Your task to perform on an android device: Open Google Image 0: 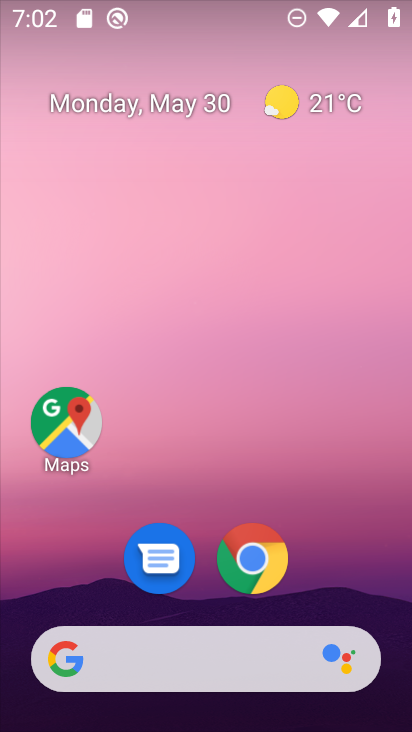
Step 0: click (190, 668)
Your task to perform on an android device: Open Google Image 1: 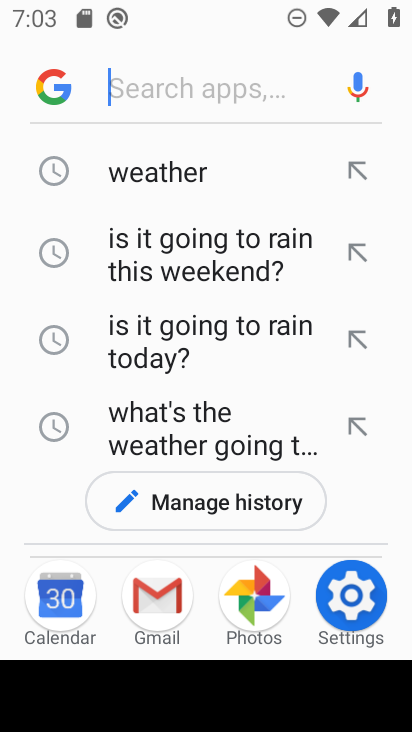
Step 1: click (52, 84)
Your task to perform on an android device: Open Google Image 2: 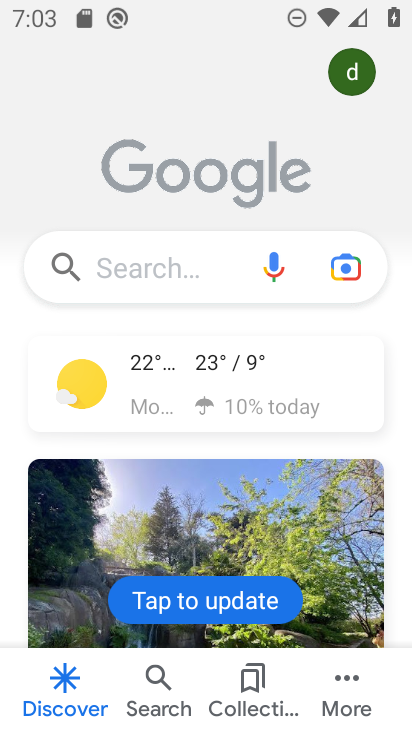
Step 2: task complete